Your task to perform on an android device: Clear all items from cart on bestbuy.com. Search for "dell xps" on bestbuy.com, select the first entry, and add it to the cart. Image 0: 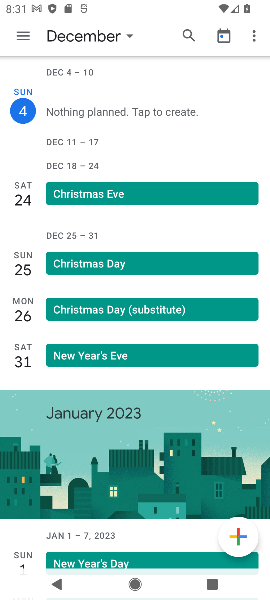
Step 0: press home button
Your task to perform on an android device: Clear all items from cart on bestbuy.com. Search for "dell xps" on bestbuy.com, select the first entry, and add it to the cart. Image 1: 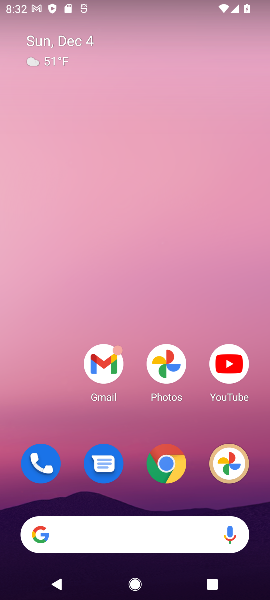
Step 1: click (113, 541)
Your task to perform on an android device: Clear all items from cart on bestbuy.com. Search for "dell xps" on bestbuy.com, select the first entry, and add it to the cart. Image 2: 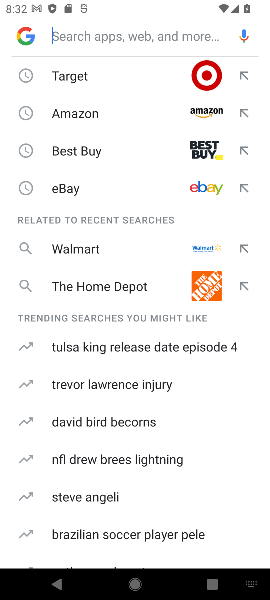
Step 2: type "bestbuy"
Your task to perform on an android device: Clear all items from cart on bestbuy.com. Search for "dell xps" on bestbuy.com, select the first entry, and add it to the cart. Image 3: 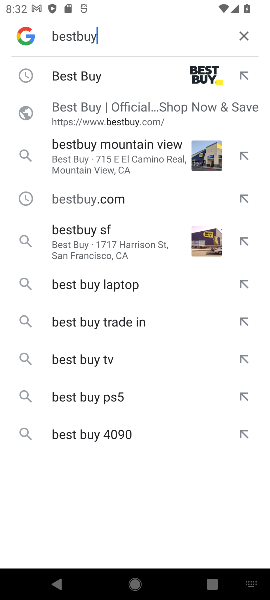
Step 3: click (109, 72)
Your task to perform on an android device: Clear all items from cart on bestbuy.com. Search for "dell xps" on bestbuy.com, select the first entry, and add it to the cart. Image 4: 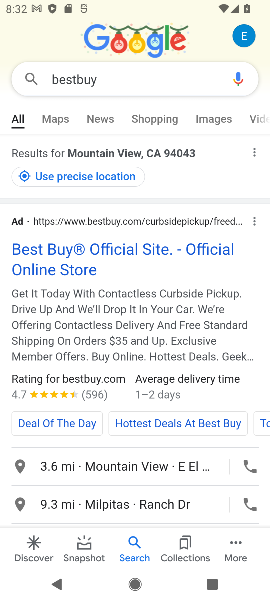
Step 4: click (24, 241)
Your task to perform on an android device: Clear all items from cart on bestbuy.com. Search for "dell xps" on bestbuy.com, select the first entry, and add it to the cart. Image 5: 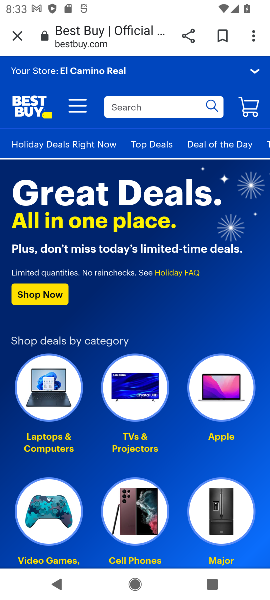
Step 5: click (134, 114)
Your task to perform on an android device: Clear all items from cart on bestbuy.com. Search for "dell xps" on bestbuy.com, select the first entry, and add it to the cart. Image 6: 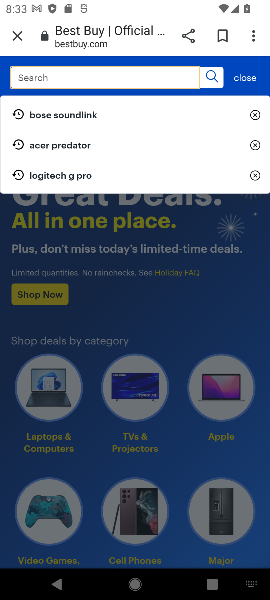
Step 6: type "dell xps"
Your task to perform on an android device: Clear all items from cart on bestbuy.com. Search for "dell xps" on bestbuy.com, select the first entry, and add it to the cart. Image 7: 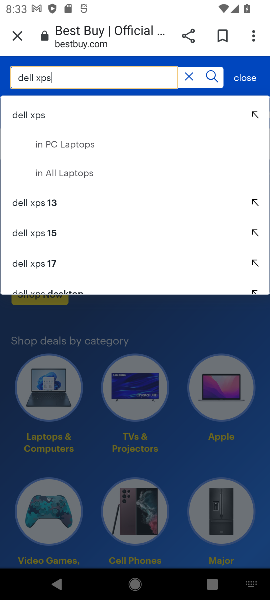
Step 7: click (66, 111)
Your task to perform on an android device: Clear all items from cart on bestbuy.com. Search for "dell xps" on bestbuy.com, select the first entry, and add it to the cart. Image 8: 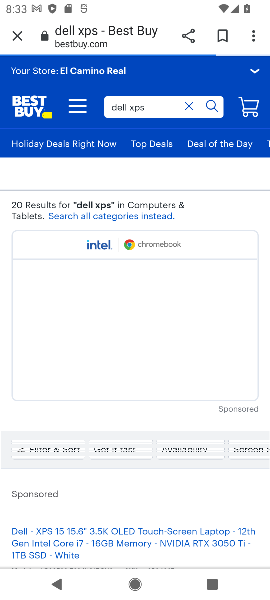
Step 8: task complete